Your task to perform on an android device: Open Google Chrome Image 0: 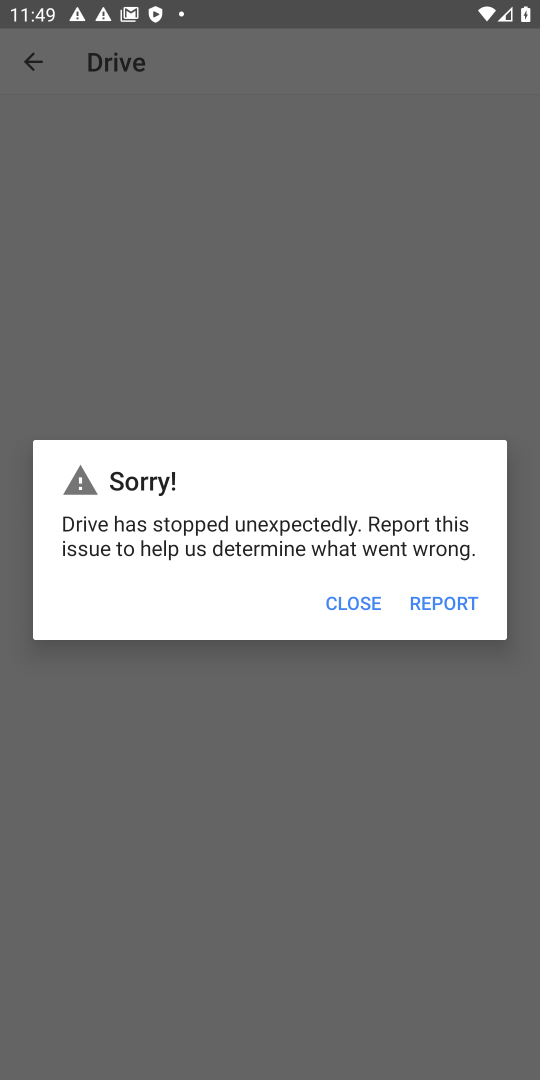
Step 0: press home button
Your task to perform on an android device: Open Google Chrome Image 1: 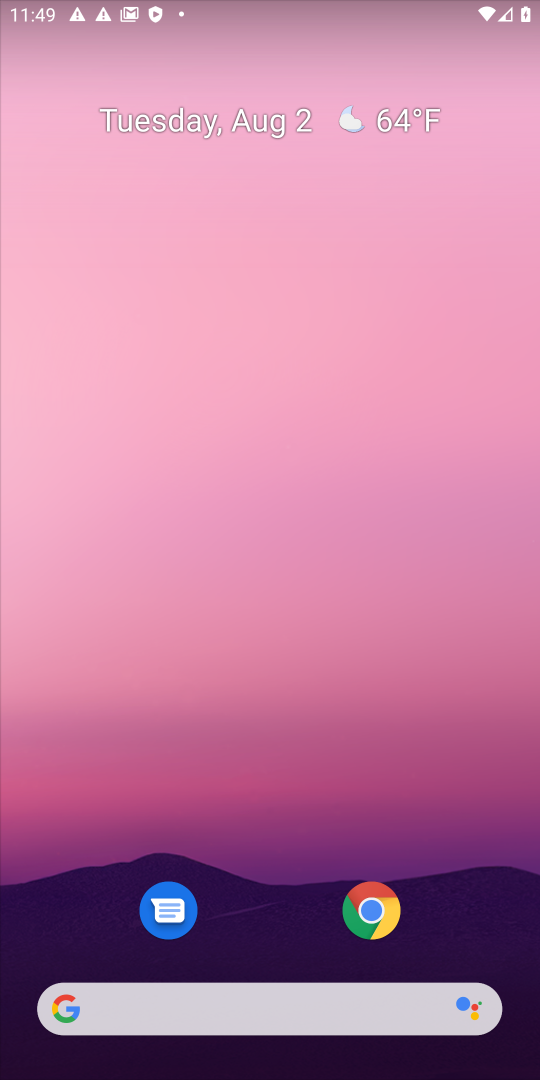
Step 1: click (376, 910)
Your task to perform on an android device: Open Google Chrome Image 2: 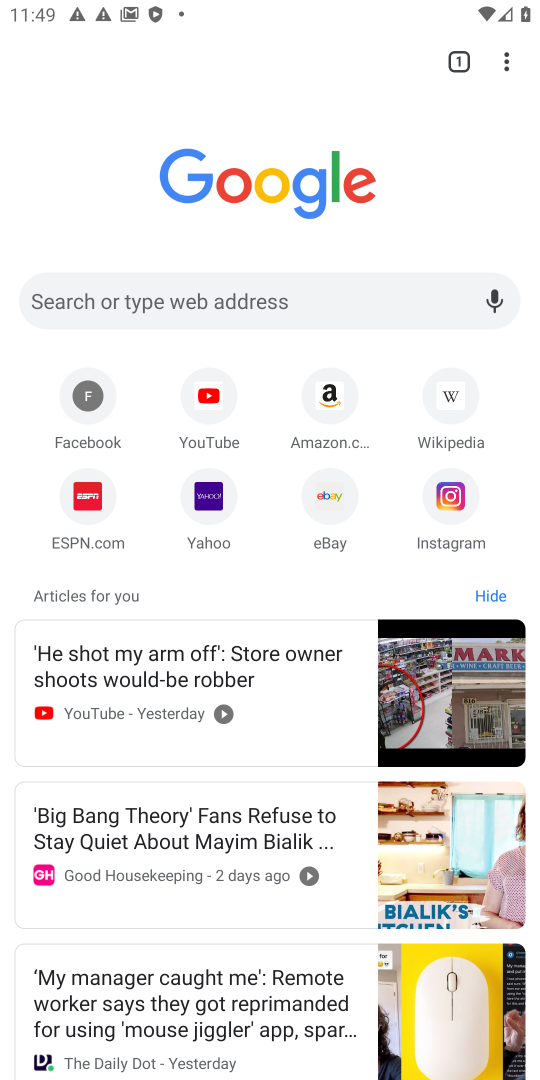
Step 2: task complete